Your task to perform on an android device: move an email to a new category in the gmail app Image 0: 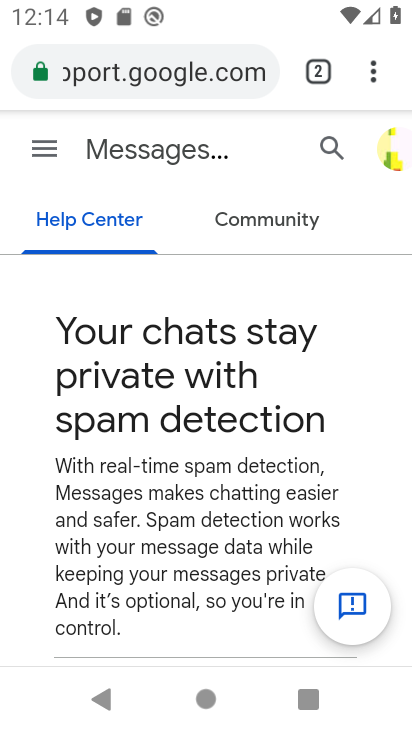
Step 0: press home button
Your task to perform on an android device: move an email to a new category in the gmail app Image 1: 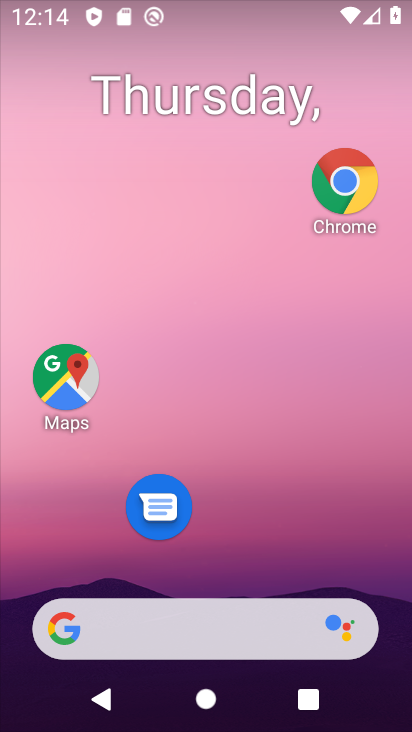
Step 1: drag from (196, 509) to (244, 173)
Your task to perform on an android device: move an email to a new category in the gmail app Image 2: 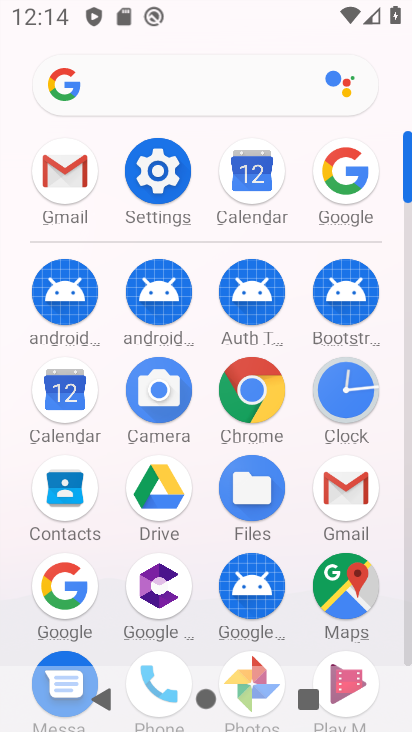
Step 2: click (330, 495)
Your task to perform on an android device: move an email to a new category in the gmail app Image 3: 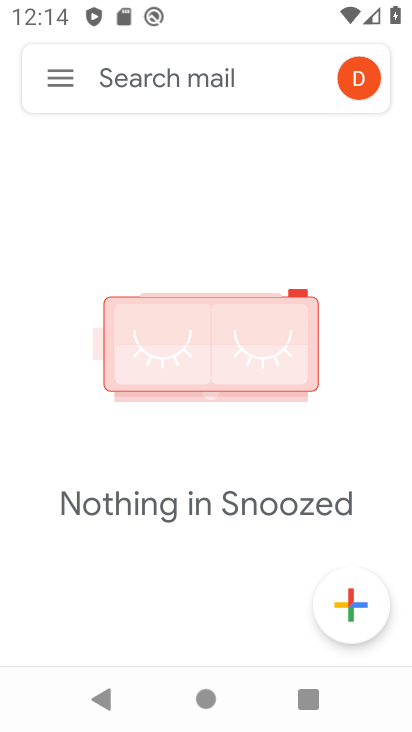
Step 3: click (59, 92)
Your task to perform on an android device: move an email to a new category in the gmail app Image 4: 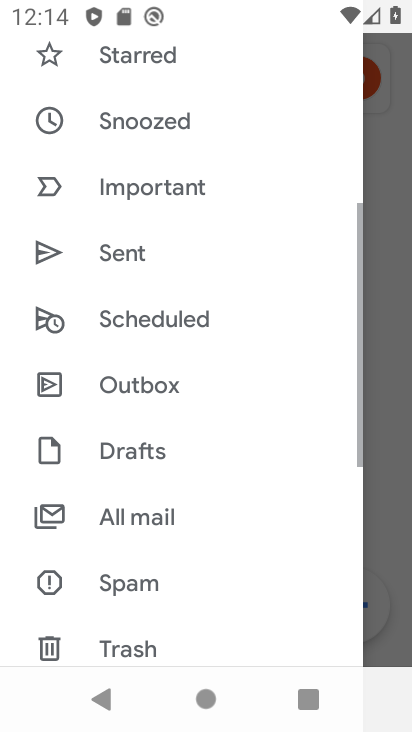
Step 4: drag from (126, 422) to (162, 280)
Your task to perform on an android device: move an email to a new category in the gmail app Image 5: 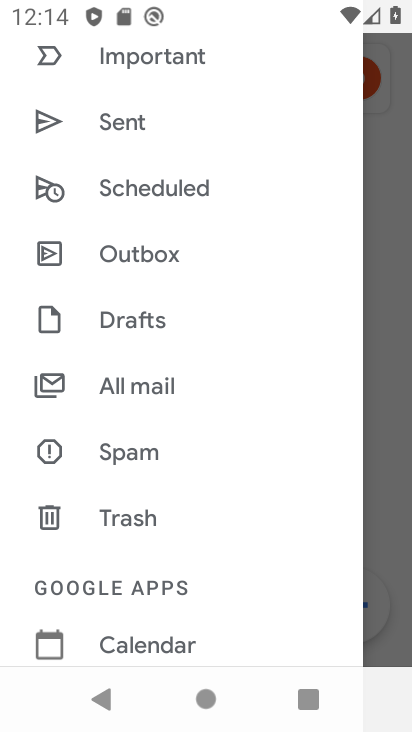
Step 5: click (152, 385)
Your task to perform on an android device: move an email to a new category in the gmail app Image 6: 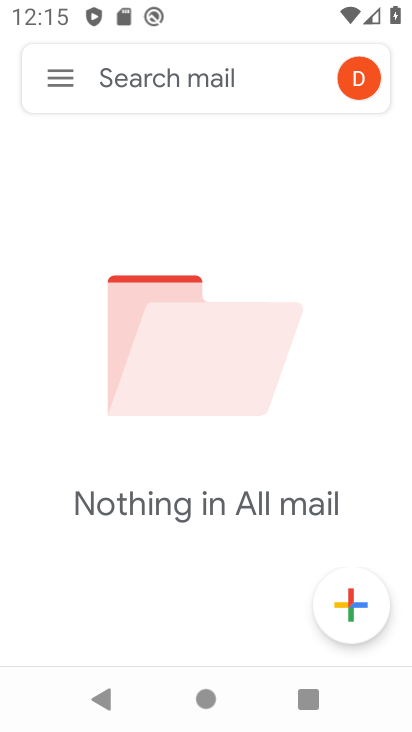
Step 6: task complete